Your task to perform on an android device: turn notification dots off Image 0: 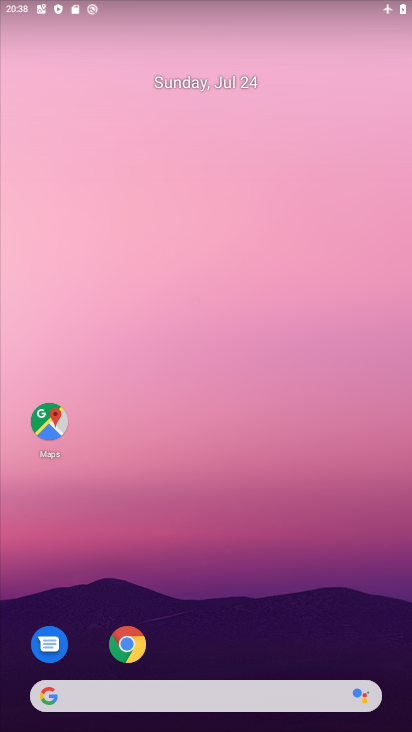
Step 0: drag from (362, 666) to (316, 197)
Your task to perform on an android device: turn notification dots off Image 1: 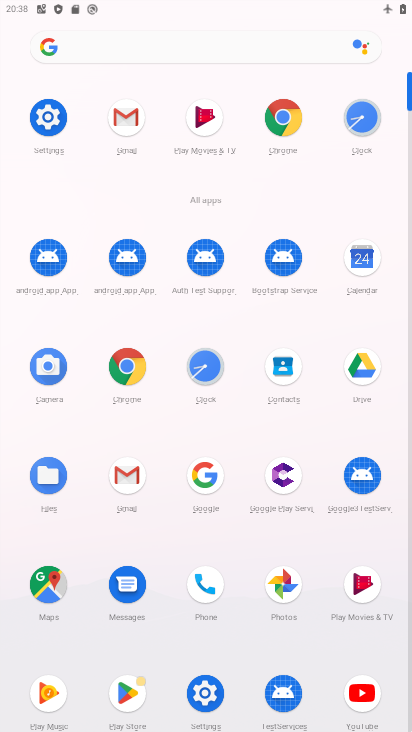
Step 1: click (204, 690)
Your task to perform on an android device: turn notification dots off Image 2: 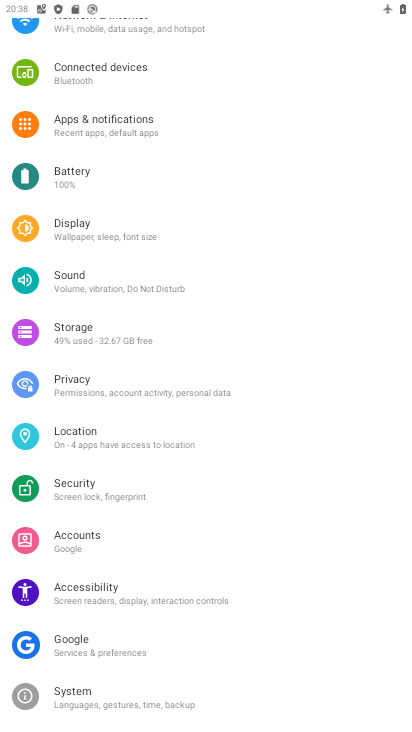
Step 2: click (105, 120)
Your task to perform on an android device: turn notification dots off Image 3: 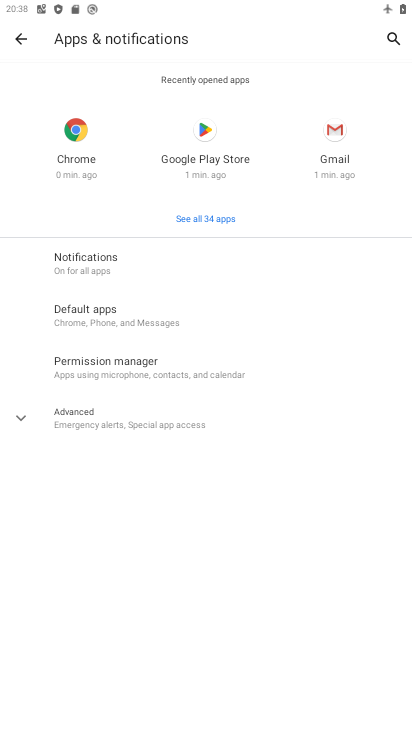
Step 3: click (82, 269)
Your task to perform on an android device: turn notification dots off Image 4: 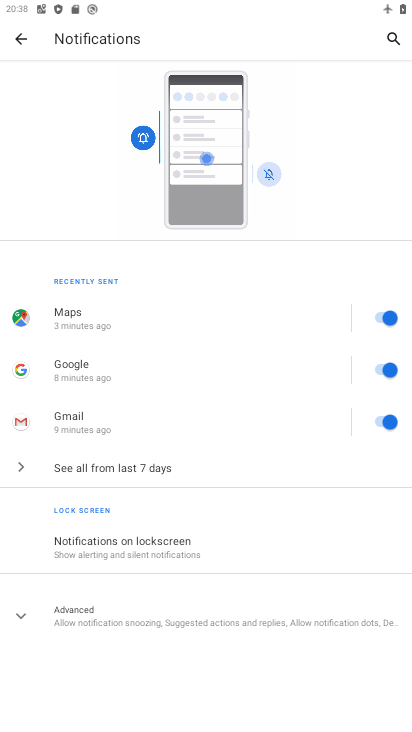
Step 4: click (28, 624)
Your task to perform on an android device: turn notification dots off Image 5: 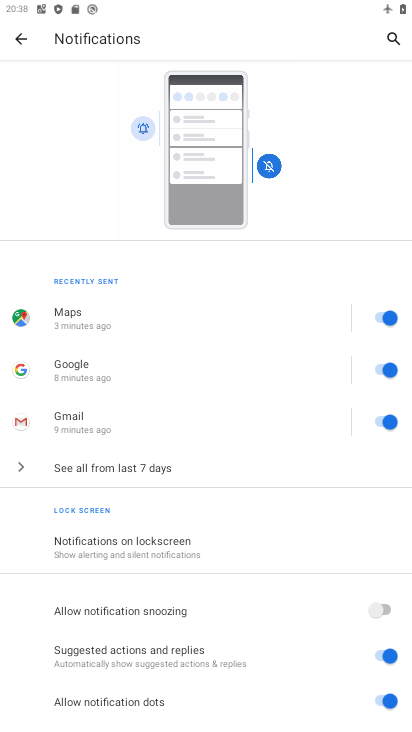
Step 5: drag from (275, 620) to (297, 390)
Your task to perform on an android device: turn notification dots off Image 6: 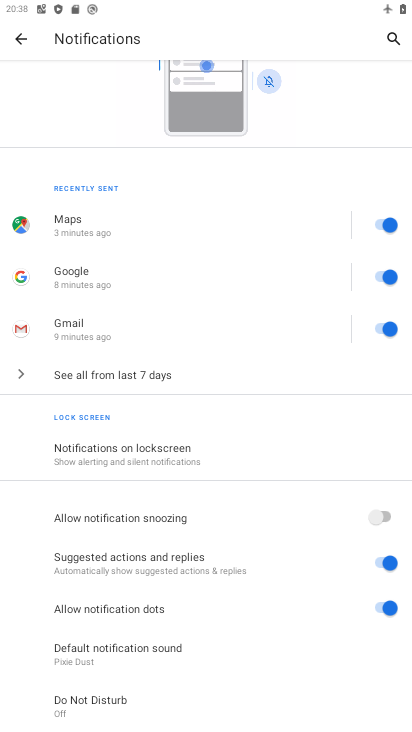
Step 6: click (376, 605)
Your task to perform on an android device: turn notification dots off Image 7: 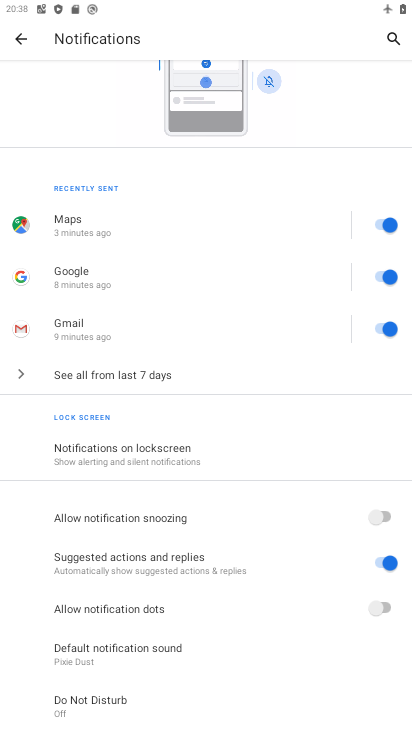
Step 7: task complete